Your task to perform on an android device: toggle translation in the chrome app Image 0: 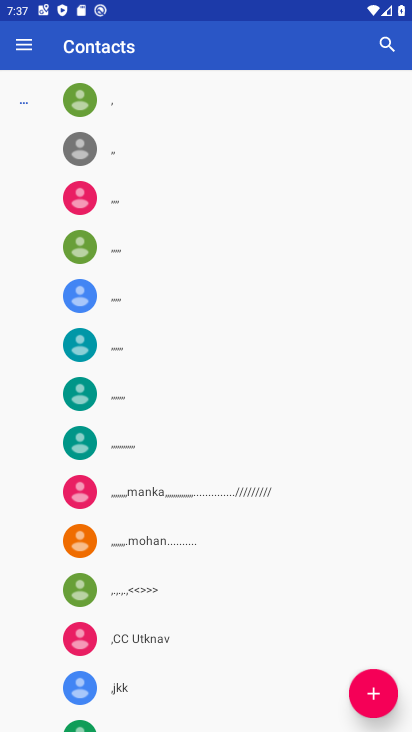
Step 0: press home button
Your task to perform on an android device: toggle translation in the chrome app Image 1: 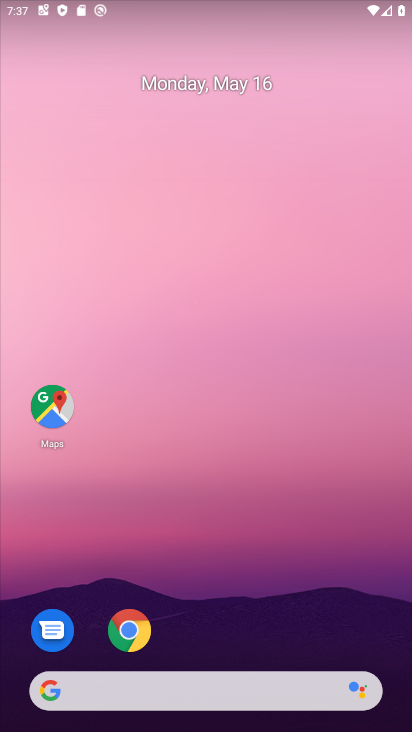
Step 1: click (138, 635)
Your task to perform on an android device: toggle translation in the chrome app Image 2: 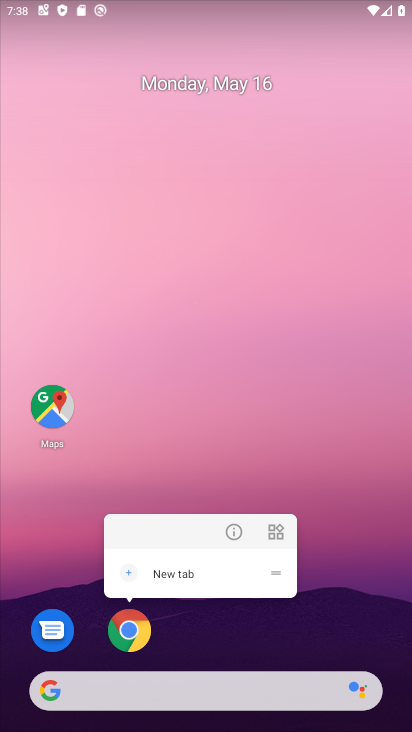
Step 2: click (138, 635)
Your task to perform on an android device: toggle translation in the chrome app Image 3: 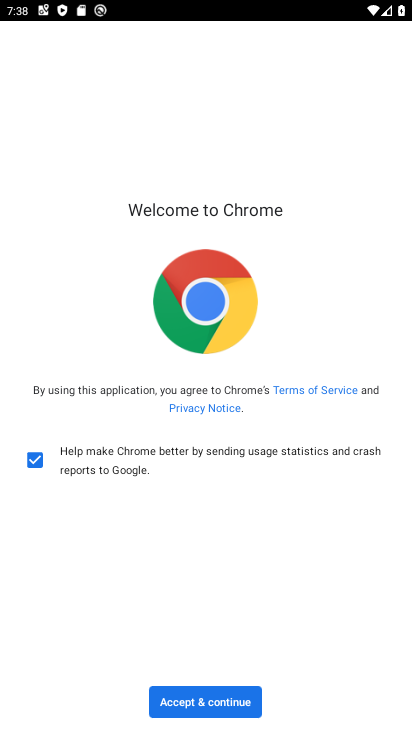
Step 3: click (175, 703)
Your task to perform on an android device: toggle translation in the chrome app Image 4: 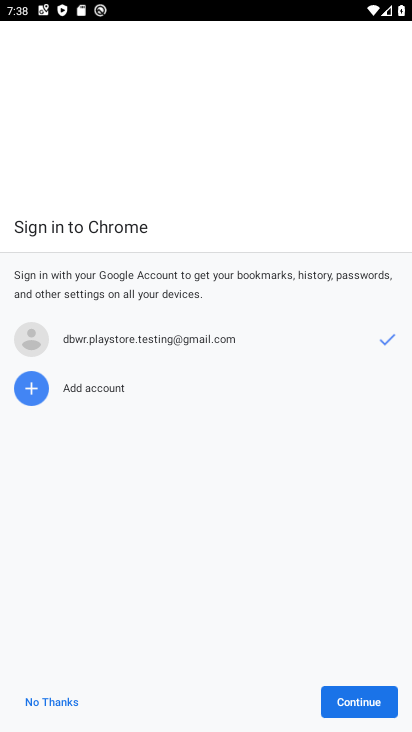
Step 4: click (353, 703)
Your task to perform on an android device: toggle translation in the chrome app Image 5: 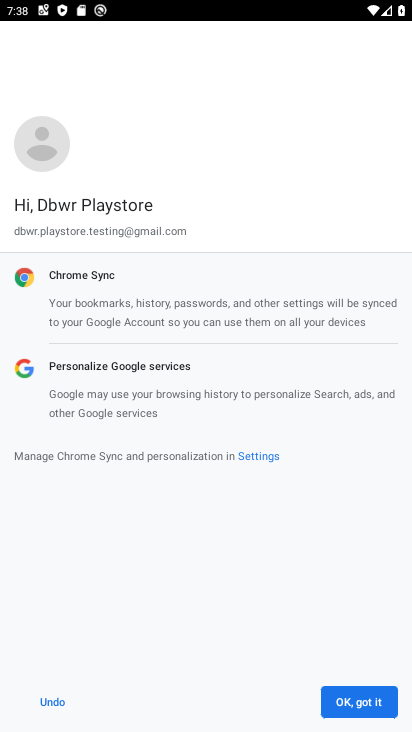
Step 5: click (347, 706)
Your task to perform on an android device: toggle translation in the chrome app Image 6: 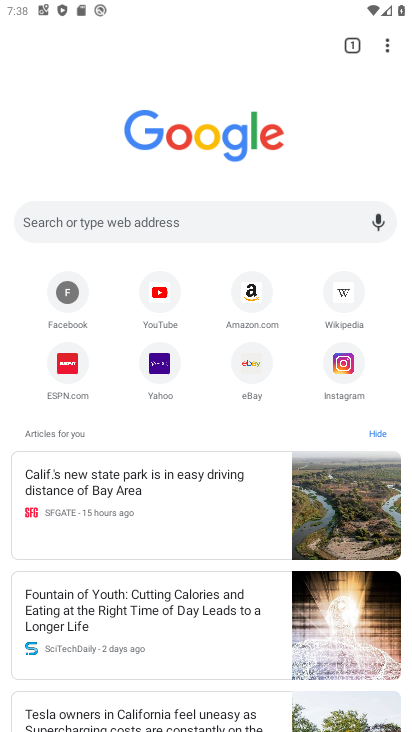
Step 6: click (390, 46)
Your task to perform on an android device: toggle translation in the chrome app Image 7: 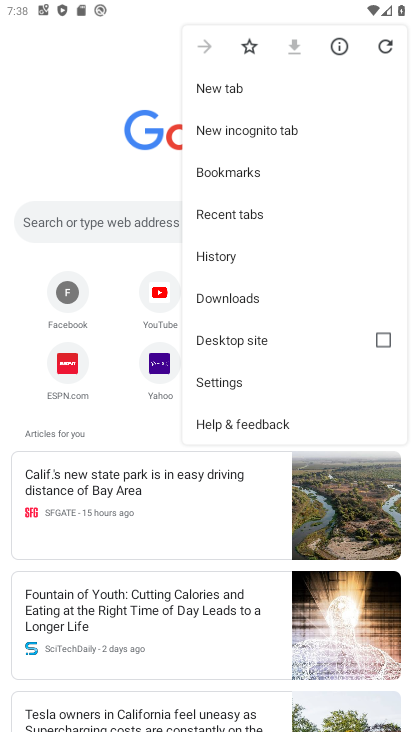
Step 7: click (308, 393)
Your task to perform on an android device: toggle translation in the chrome app Image 8: 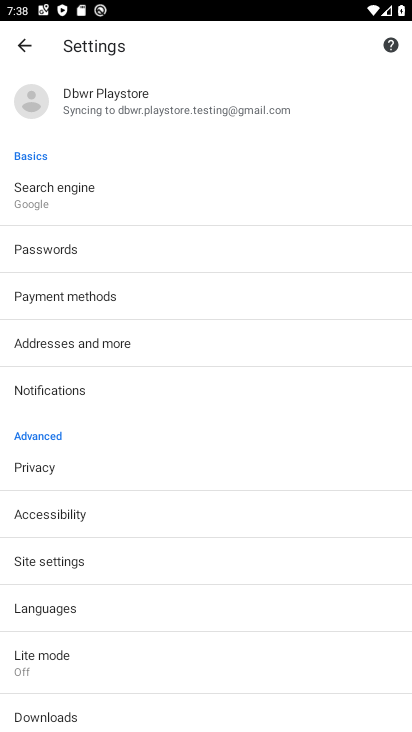
Step 8: click (60, 565)
Your task to perform on an android device: toggle translation in the chrome app Image 9: 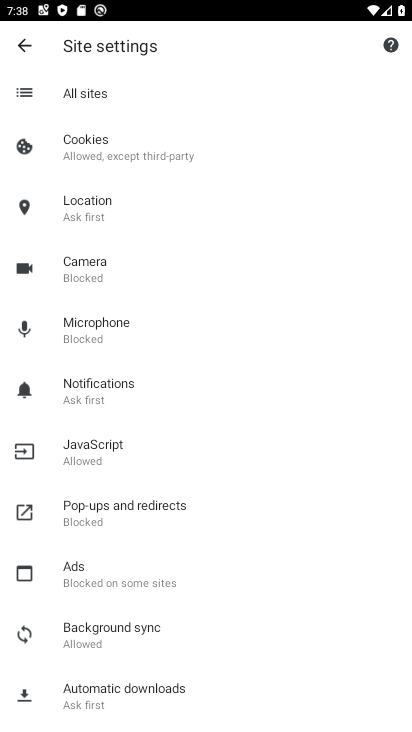
Step 9: drag from (246, 624) to (226, 231)
Your task to perform on an android device: toggle translation in the chrome app Image 10: 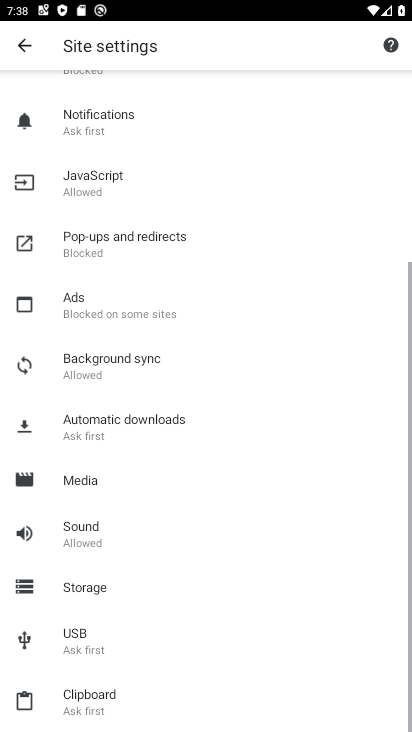
Step 10: drag from (240, 595) to (219, 227)
Your task to perform on an android device: toggle translation in the chrome app Image 11: 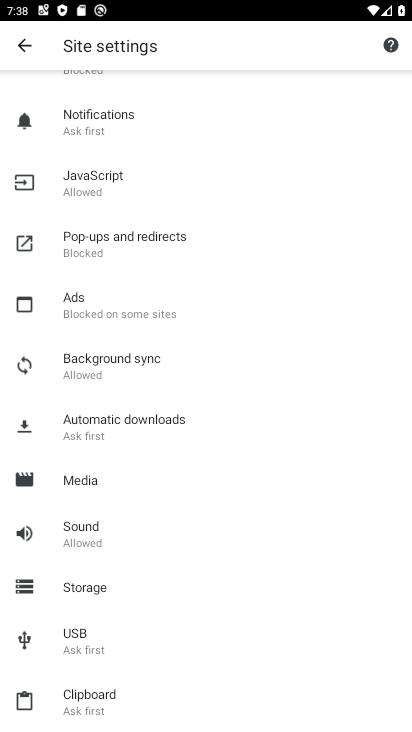
Step 11: press back button
Your task to perform on an android device: toggle translation in the chrome app Image 12: 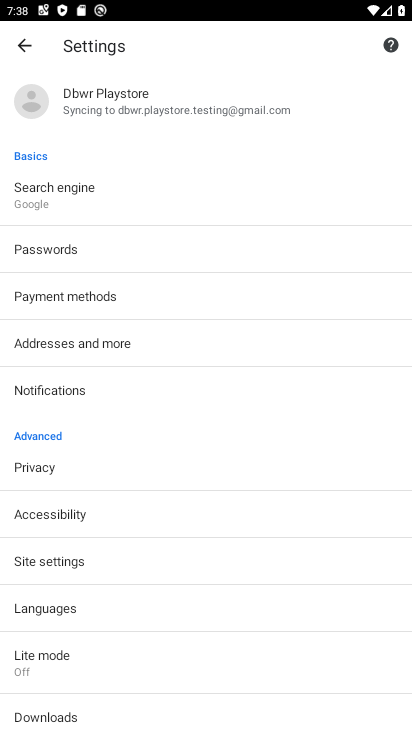
Step 12: drag from (201, 636) to (208, 228)
Your task to perform on an android device: toggle translation in the chrome app Image 13: 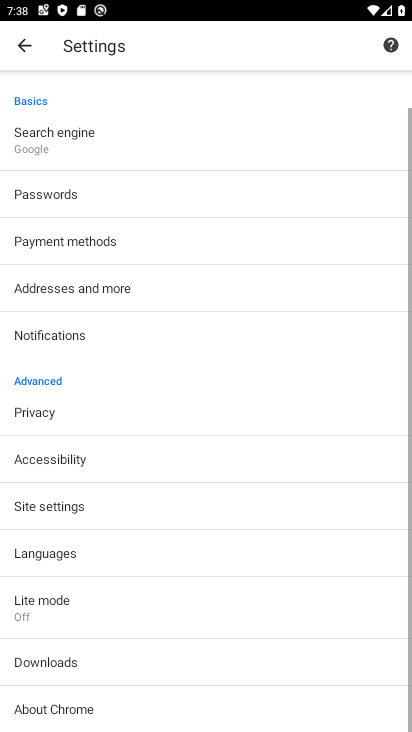
Step 13: drag from (190, 658) to (202, 198)
Your task to perform on an android device: toggle translation in the chrome app Image 14: 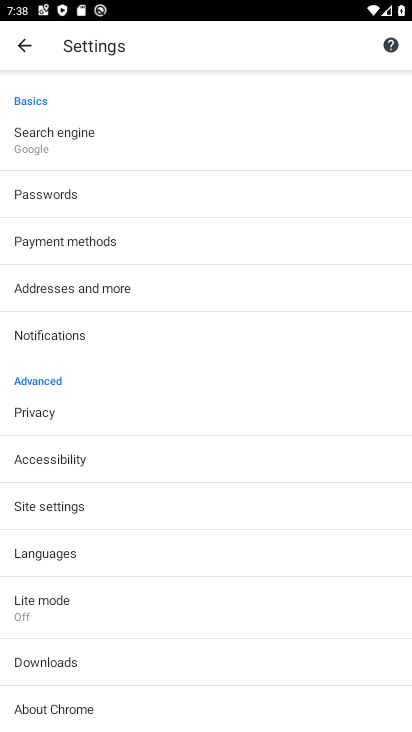
Step 14: click (127, 545)
Your task to perform on an android device: toggle translation in the chrome app Image 15: 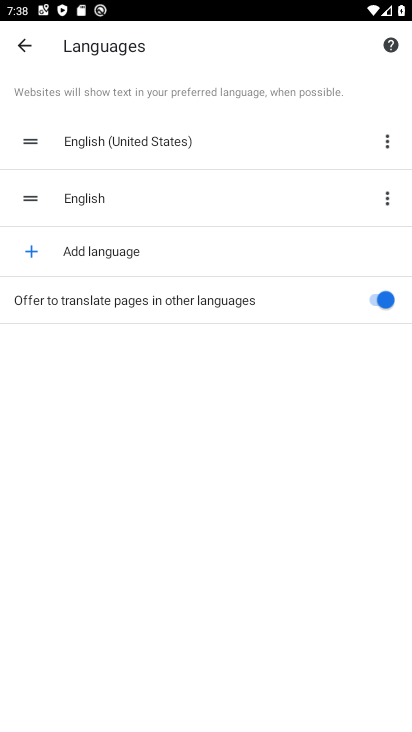
Step 15: click (125, 208)
Your task to perform on an android device: toggle translation in the chrome app Image 16: 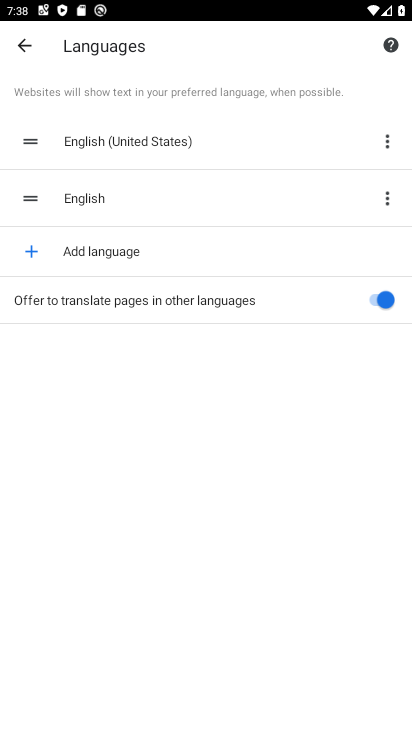
Step 16: click (122, 211)
Your task to perform on an android device: toggle translation in the chrome app Image 17: 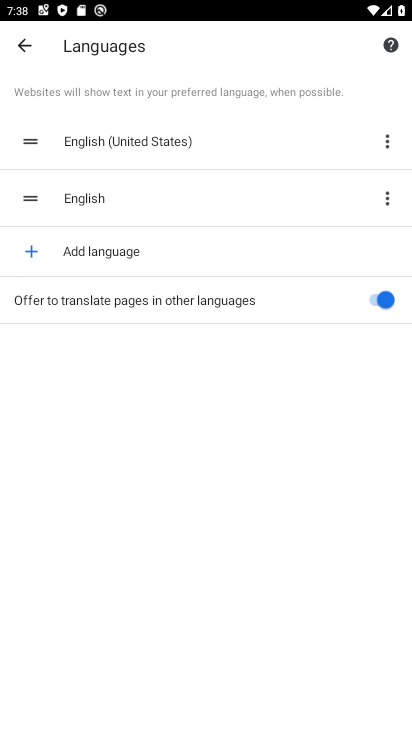
Step 17: click (118, 193)
Your task to perform on an android device: toggle translation in the chrome app Image 18: 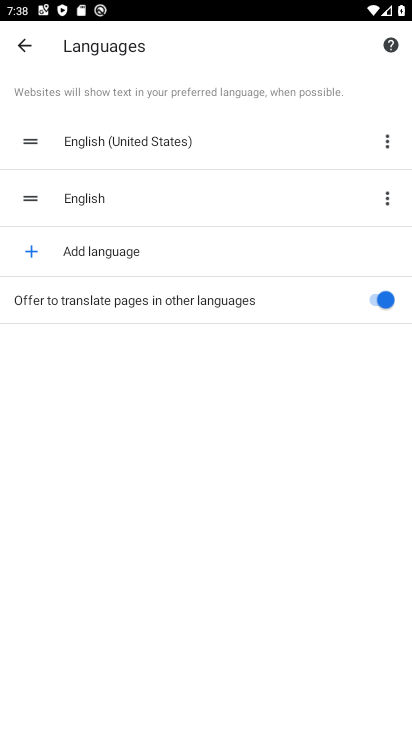
Step 18: click (389, 298)
Your task to perform on an android device: toggle translation in the chrome app Image 19: 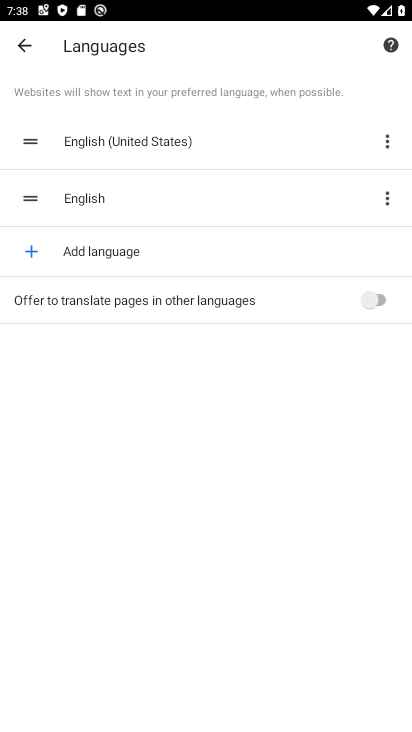
Step 19: click (212, 194)
Your task to perform on an android device: toggle translation in the chrome app Image 20: 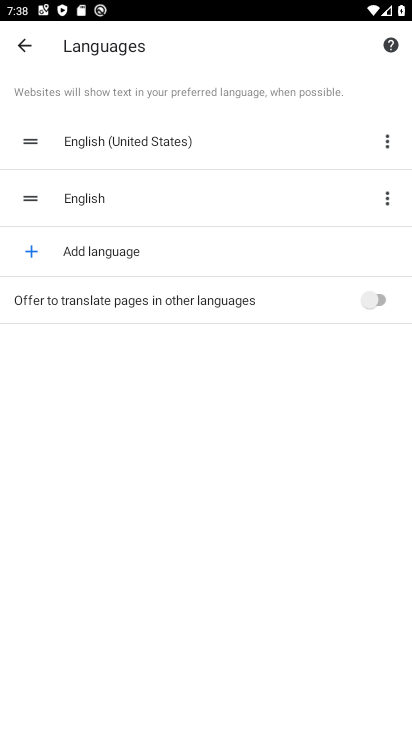
Step 20: click (179, 263)
Your task to perform on an android device: toggle translation in the chrome app Image 21: 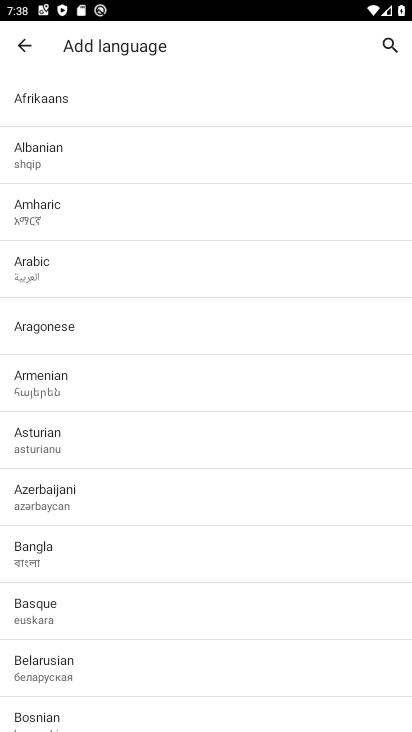
Step 21: drag from (183, 555) to (208, 17)
Your task to perform on an android device: toggle translation in the chrome app Image 22: 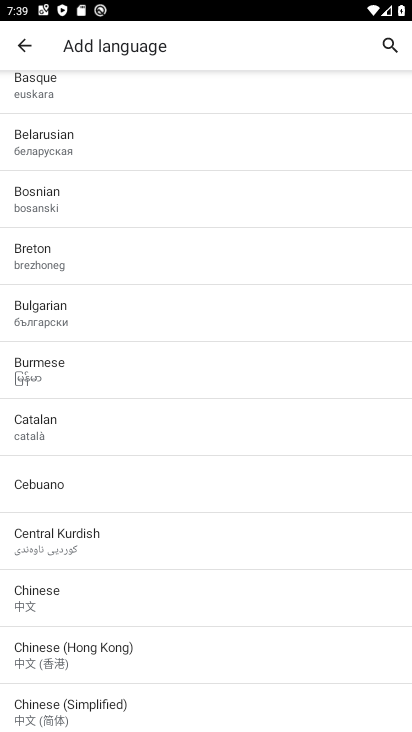
Step 22: drag from (128, 658) to (179, 240)
Your task to perform on an android device: toggle translation in the chrome app Image 23: 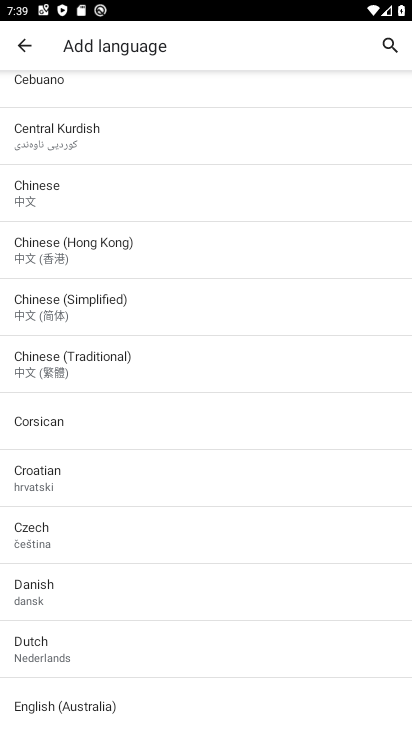
Step 23: click (194, 122)
Your task to perform on an android device: toggle translation in the chrome app Image 24: 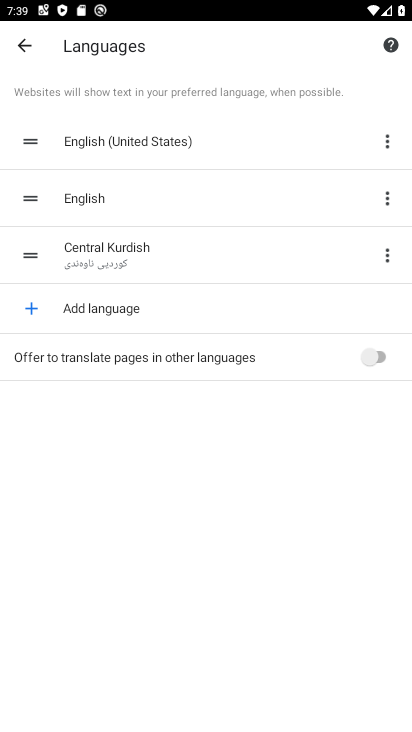
Step 24: drag from (128, 623) to (158, 249)
Your task to perform on an android device: toggle translation in the chrome app Image 25: 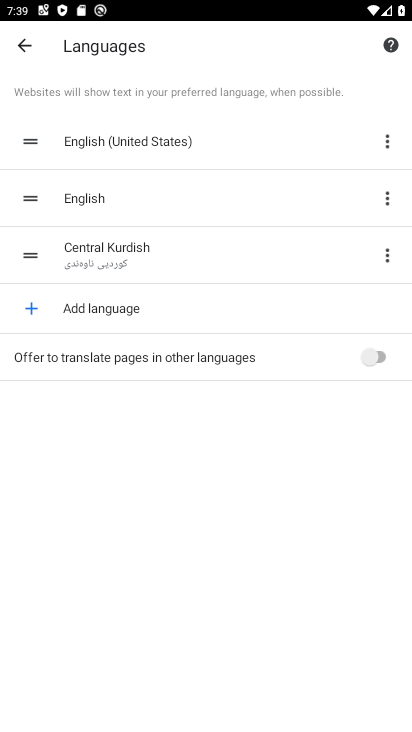
Step 25: click (275, 300)
Your task to perform on an android device: toggle translation in the chrome app Image 26: 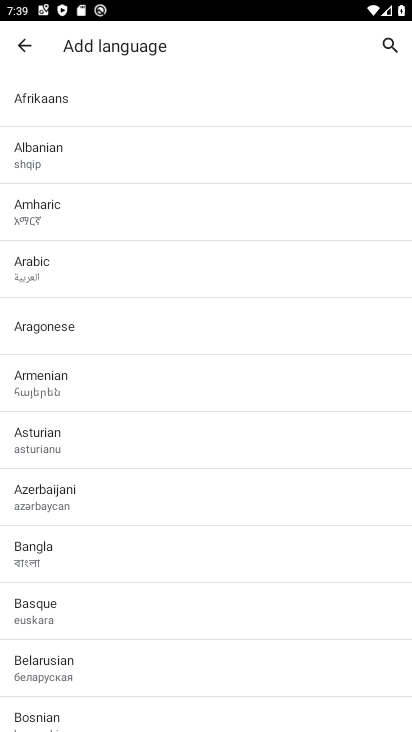
Step 26: drag from (247, 578) to (208, 164)
Your task to perform on an android device: toggle translation in the chrome app Image 27: 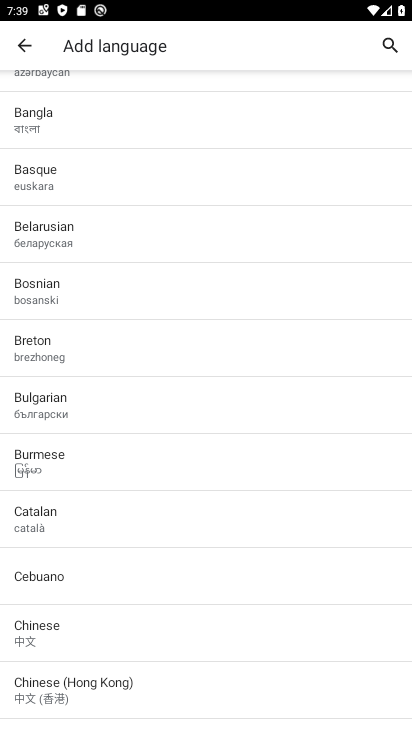
Step 27: drag from (185, 667) to (198, 184)
Your task to perform on an android device: toggle translation in the chrome app Image 28: 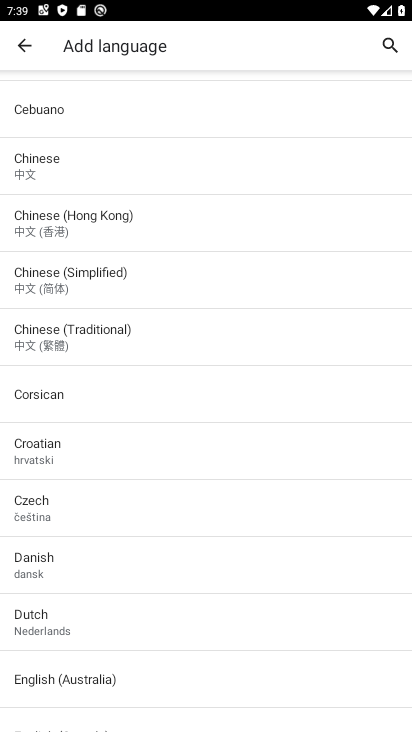
Step 28: drag from (207, 600) to (237, 170)
Your task to perform on an android device: toggle translation in the chrome app Image 29: 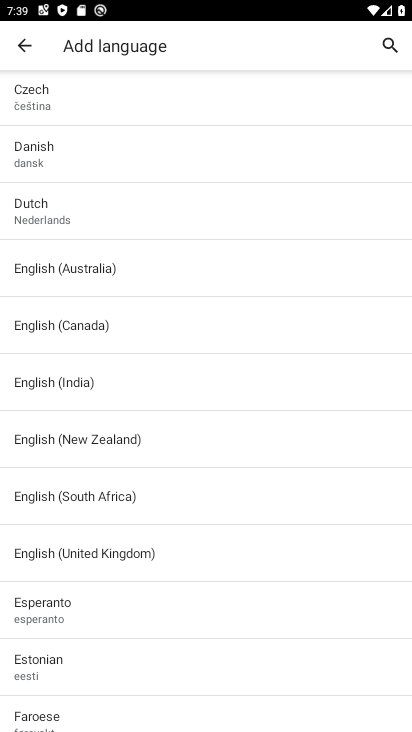
Step 29: drag from (186, 722) to (236, 218)
Your task to perform on an android device: toggle translation in the chrome app Image 30: 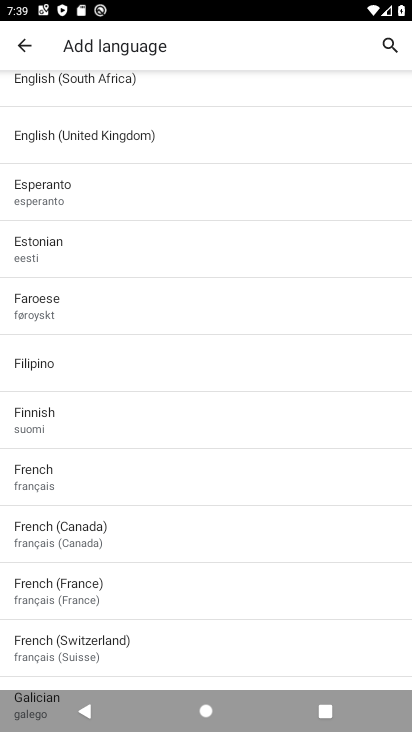
Step 30: drag from (278, 530) to (244, 231)
Your task to perform on an android device: toggle translation in the chrome app Image 31: 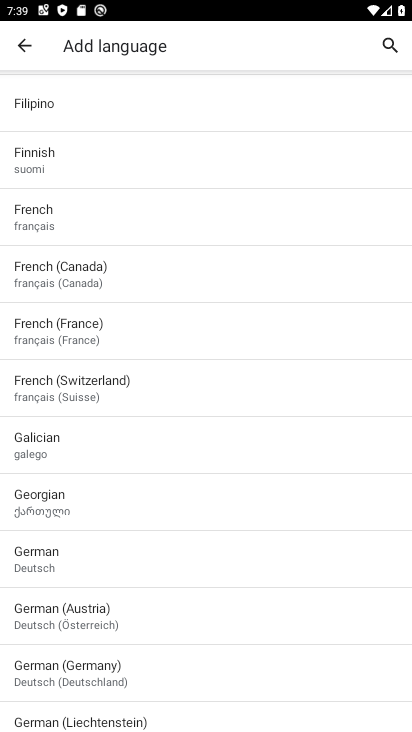
Step 31: drag from (203, 586) to (201, 174)
Your task to perform on an android device: toggle translation in the chrome app Image 32: 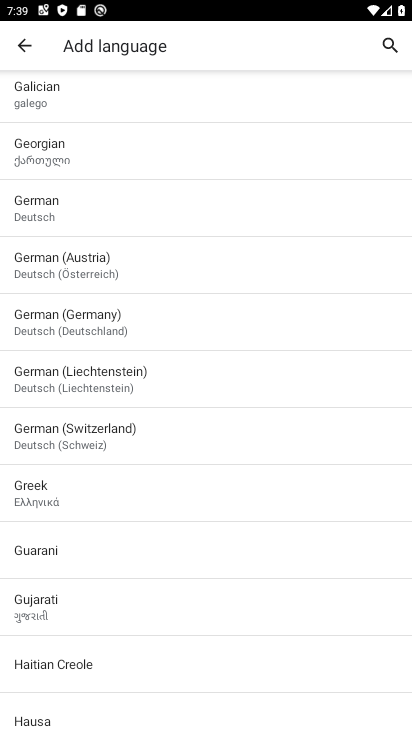
Step 32: drag from (147, 558) to (148, 178)
Your task to perform on an android device: toggle translation in the chrome app Image 33: 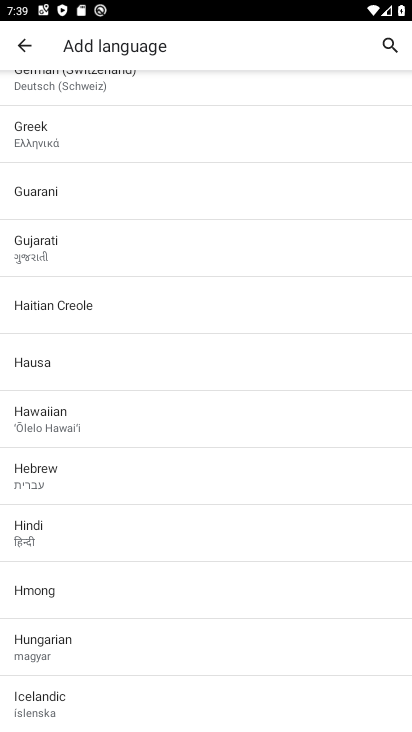
Step 33: click (113, 521)
Your task to perform on an android device: toggle translation in the chrome app Image 34: 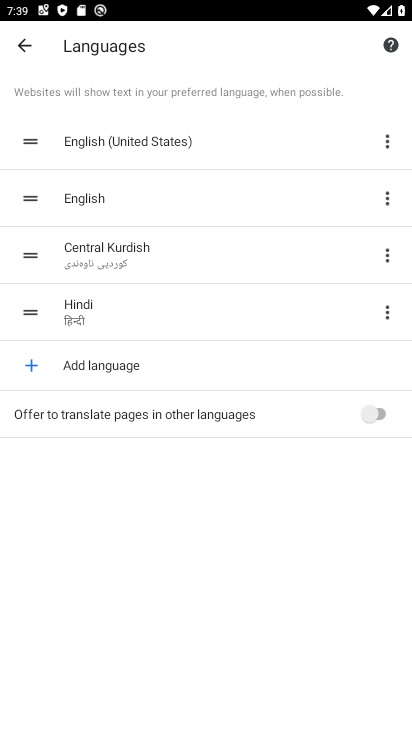
Step 34: task complete